Your task to perform on an android device: Open Youtube and go to "Your channel" Image 0: 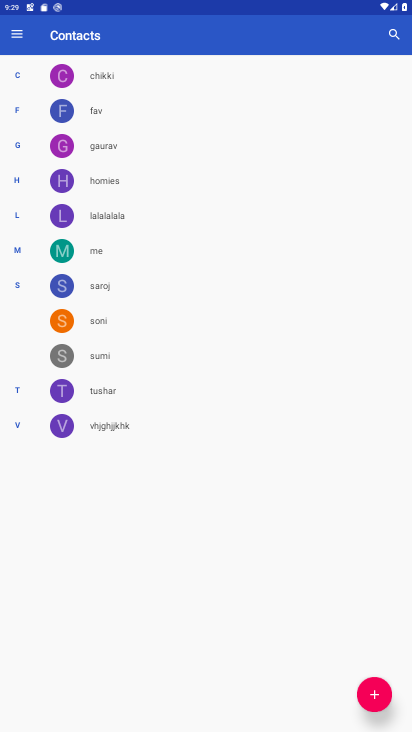
Step 0: press home button
Your task to perform on an android device: Open Youtube and go to "Your channel" Image 1: 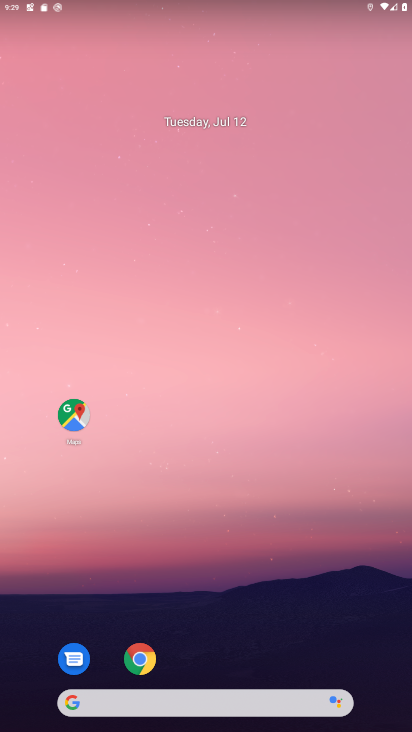
Step 1: drag from (285, 626) to (283, 23)
Your task to perform on an android device: Open Youtube and go to "Your channel" Image 2: 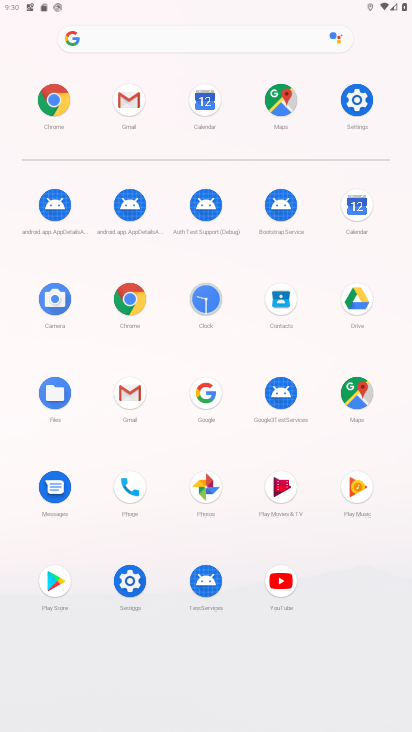
Step 2: click (283, 571)
Your task to perform on an android device: Open Youtube and go to "Your channel" Image 3: 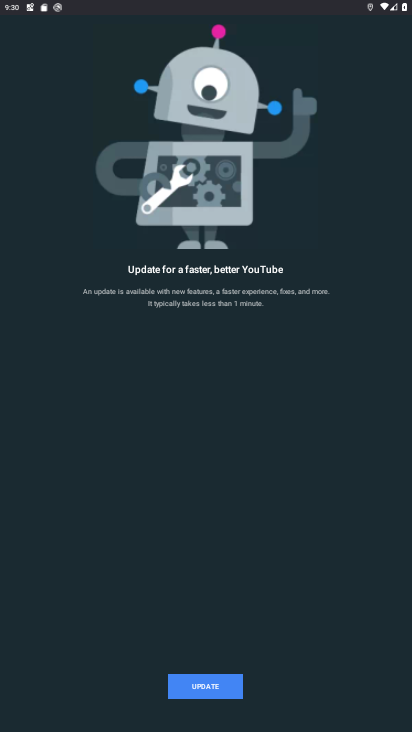
Step 3: click (216, 690)
Your task to perform on an android device: Open Youtube and go to "Your channel" Image 4: 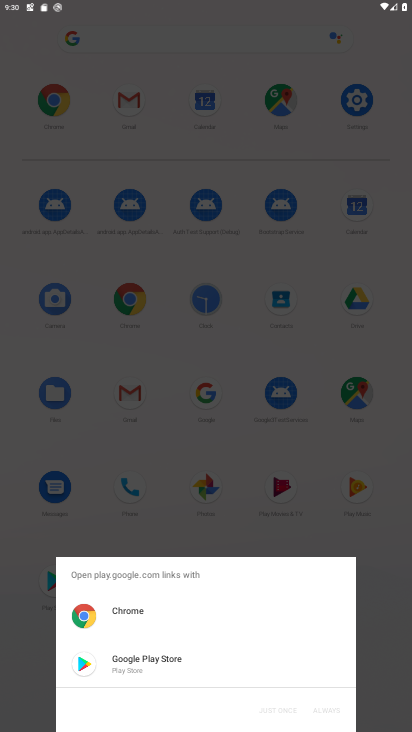
Step 4: click (142, 652)
Your task to perform on an android device: Open Youtube and go to "Your channel" Image 5: 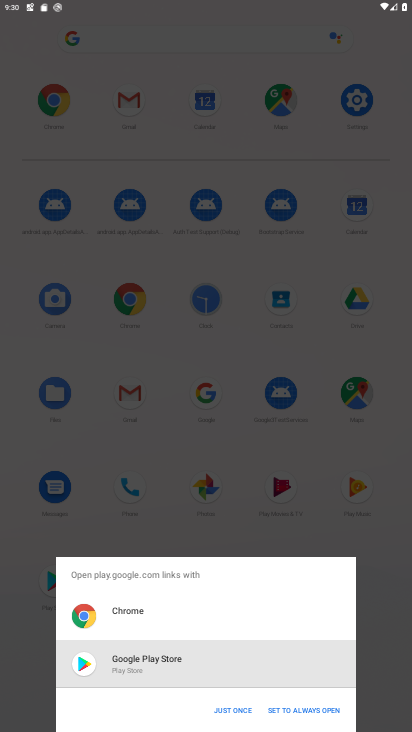
Step 5: click (235, 711)
Your task to perform on an android device: Open Youtube and go to "Your channel" Image 6: 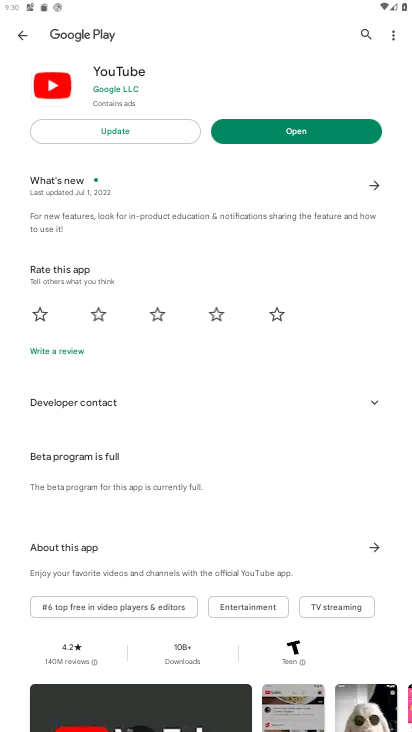
Step 6: click (122, 131)
Your task to perform on an android device: Open Youtube and go to "Your channel" Image 7: 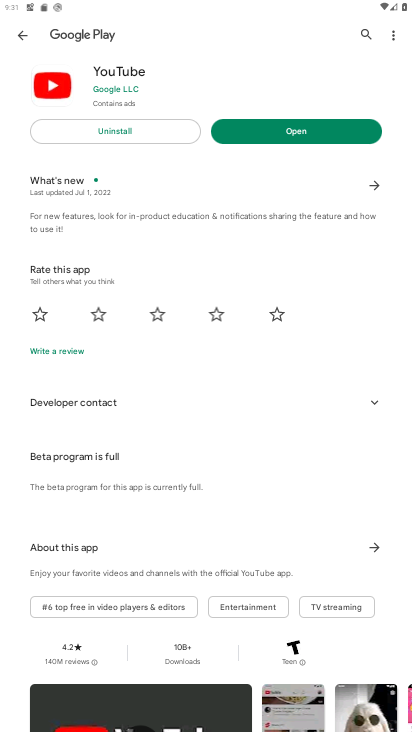
Step 7: click (340, 133)
Your task to perform on an android device: Open Youtube and go to "Your channel" Image 8: 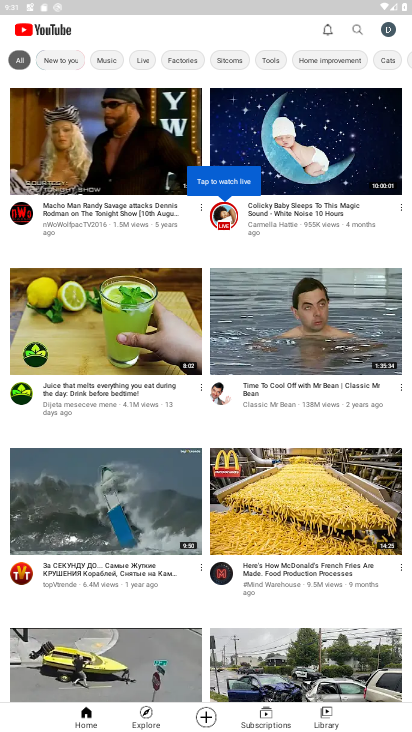
Step 8: click (393, 24)
Your task to perform on an android device: Open Youtube and go to "Your channel" Image 9: 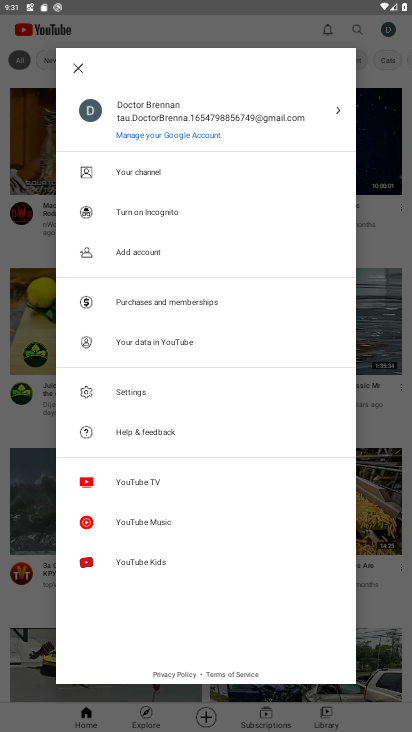
Step 9: click (134, 172)
Your task to perform on an android device: Open Youtube and go to "Your channel" Image 10: 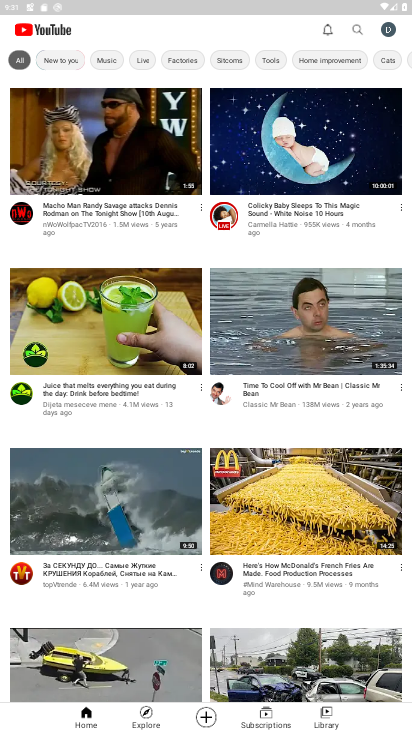
Step 10: click (386, 22)
Your task to perform on an android device: Open Youtube and go to "Your channel" Image 11: 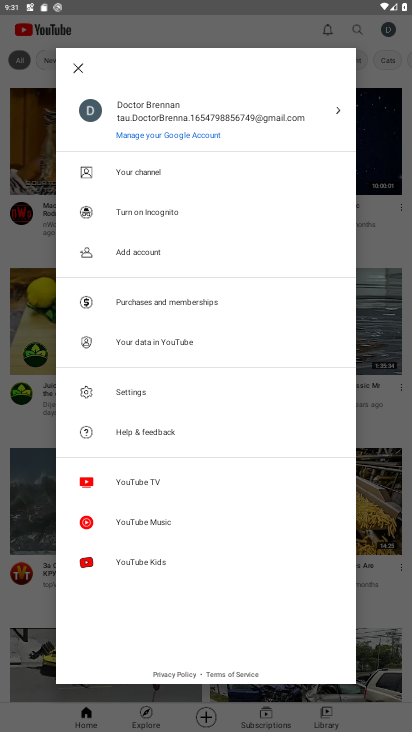
Step 11: click (135, 163)
Your task to perform on an android device: Open Youtube and go to "Your channel" Image 12: 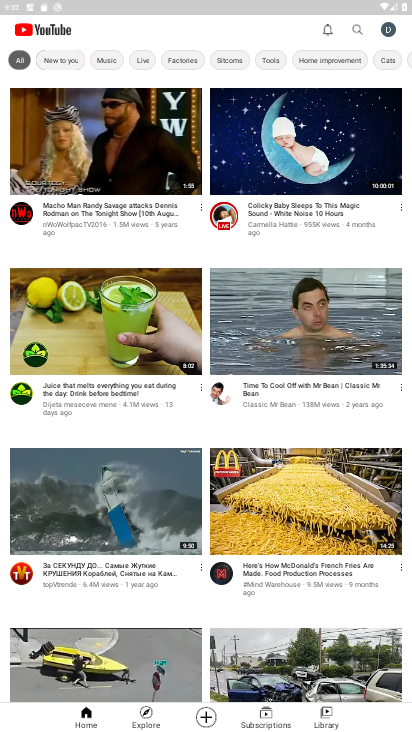
Step 12: task complete